Your task to perform on an android device: Go to Google Image 0: 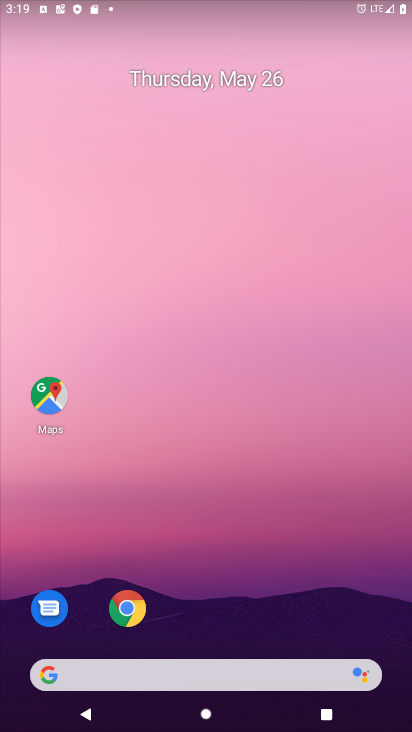
Step 0: click (129, 613)
Your task to perform on an android device: Go to Google Image 1: 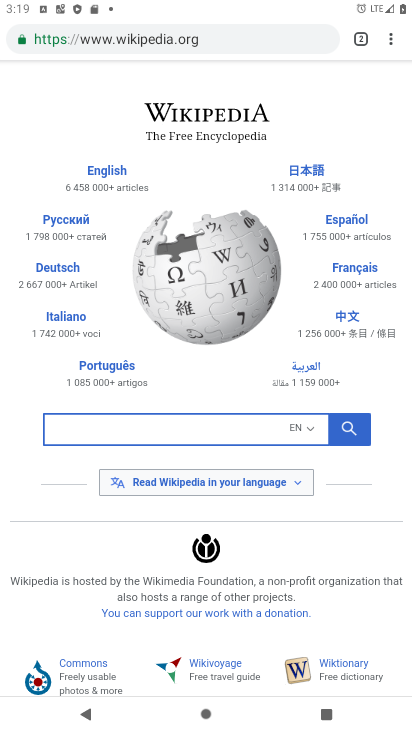
Step 1: task complete